Your task to perform on an android device: Show me popular games on the Play Store Image 0: 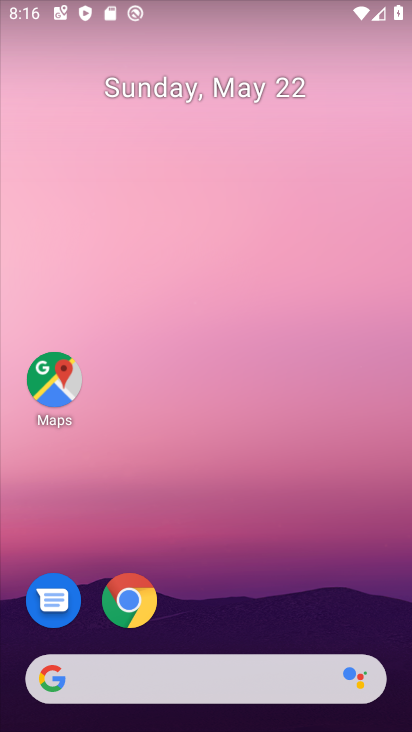
Step 0: drag from (241, 653) to (270, 360)
Your task to perform on an android device: Show me popular games on the Play Store Image 1: 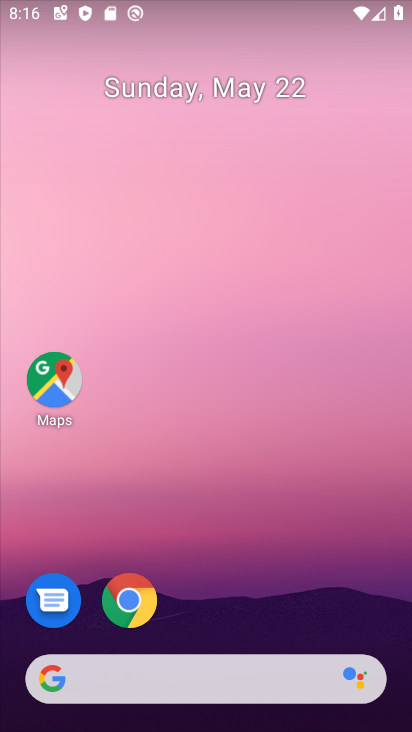
Step 1: drag from (281, 546) to (347, 207)
Your task to perform on an android device: Show me popular games on the Play Store Image 2: 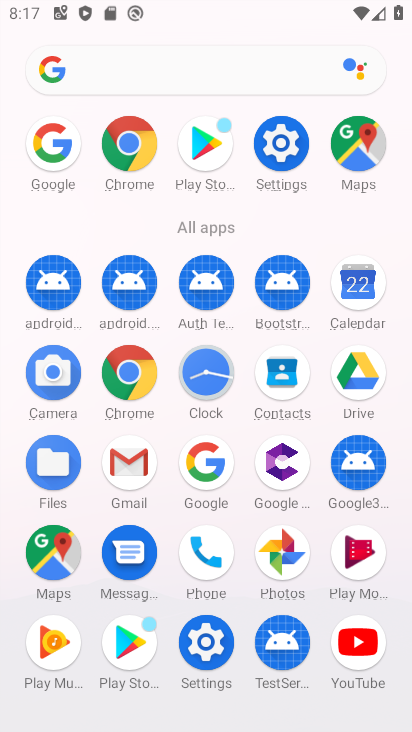
Step 2: click (131, 646)
Your task to perform on an android device: Show me popular games on the Play Store Image 3: 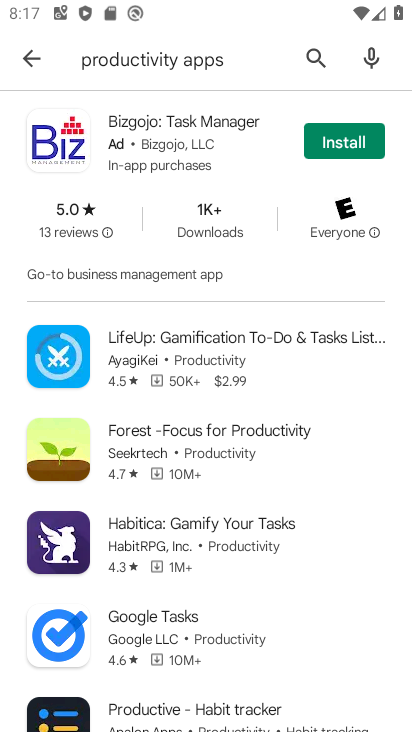
Step 3: task complete